Your task to perform on an android device: toggle notifications settings in the gmail app Image 0: 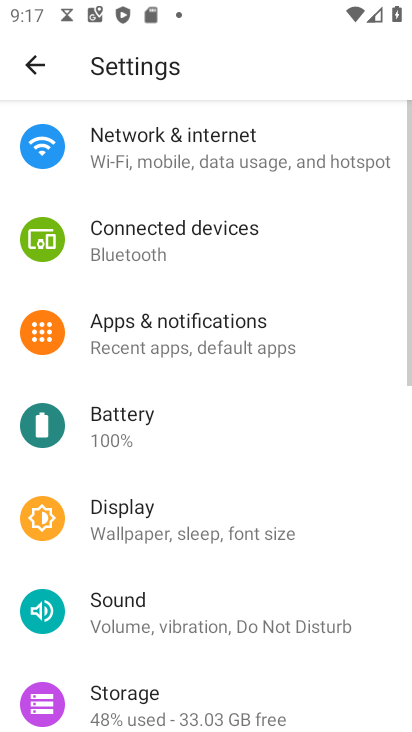
Step 0: press home button
Your task to perform on an android device: toggle notifications settings in the gmail app Image 1: 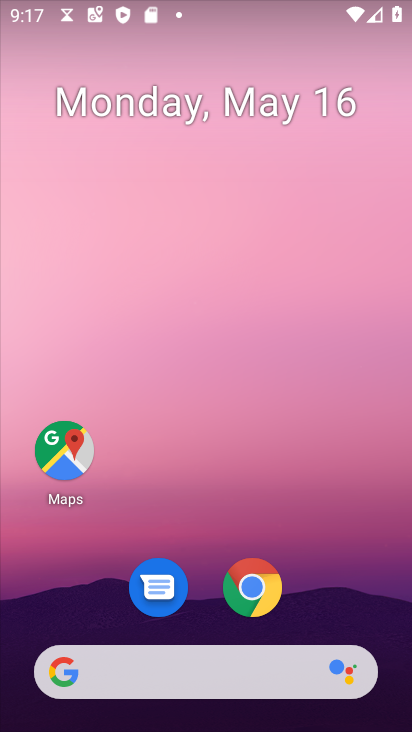
Step 1: drag from (364, 592) to (245, 0)
Your task to perform on an android device: toggle notifications settings in the gmail app Image 2: 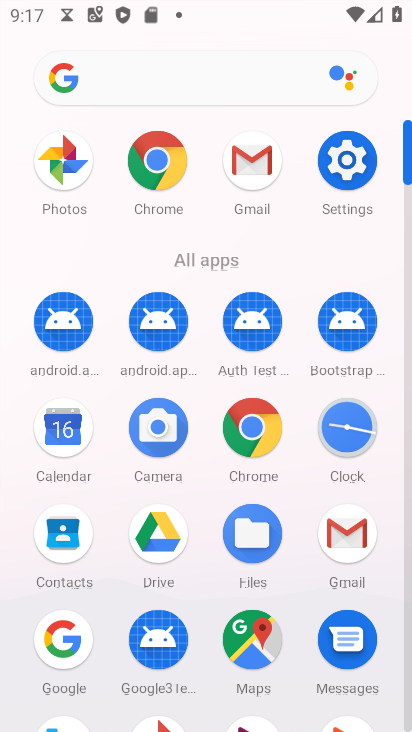
Step 2: click (249, 170)
Your task to perform on an android device: toggle notifications settings in the gmail app Image 3: 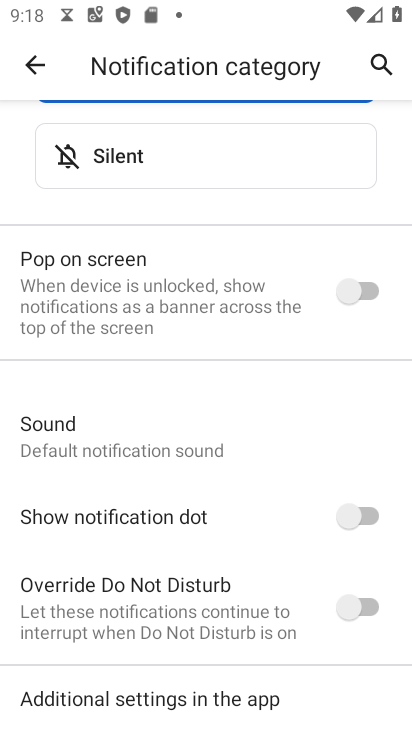
Step 3: drag from (253, 272) to (226, 698)
Your task to perform on an android device: toggle notifications settings in the gmail app Image 4: 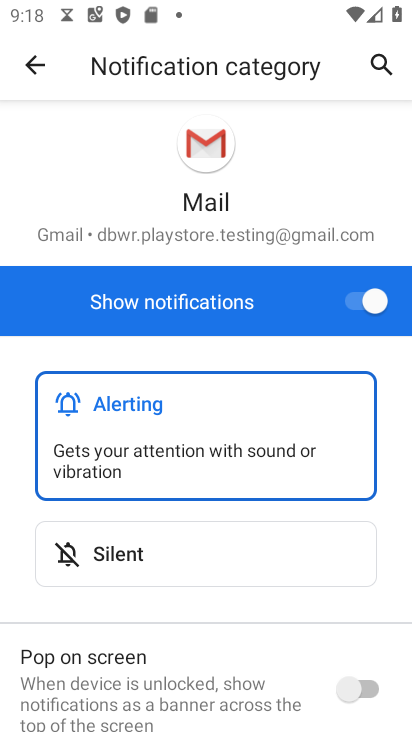
Step 4: click (209, 562)
Your task to perform on an android device: toggle notifications settings in the gmail app Image 5: 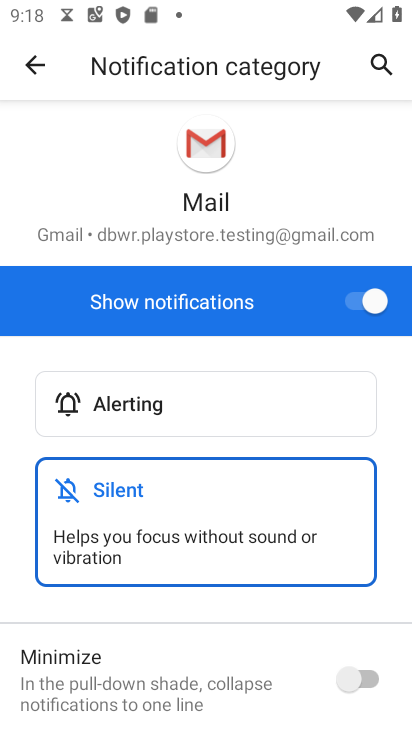
Step 5: task complete